Your task to perform on an android device: Open Android settings Image 0: 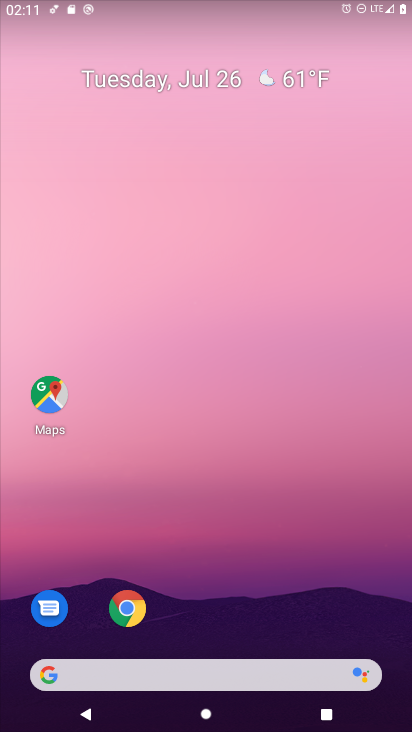
Step 0: drag from (32, 619) to (244, 88)
Your task to perform on an android device: Open Android settings Image 1: 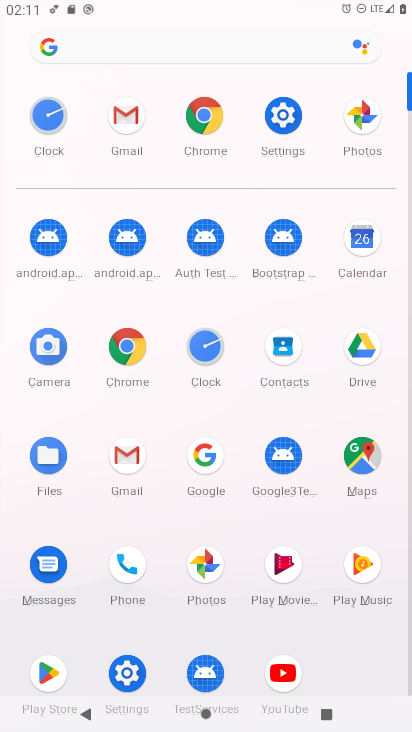
Step 1: click (301, 108)
Your task to perform on an android device: Open Android settings Image 2: 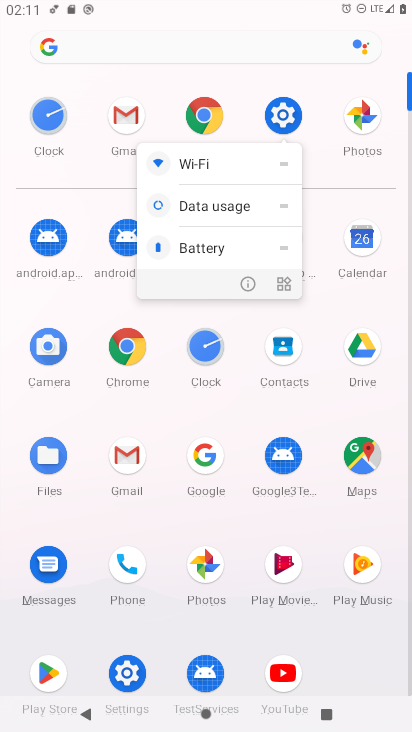
Step 2: click (287, 110)
Your task to perform on an android device: Open Android settings Image 3: 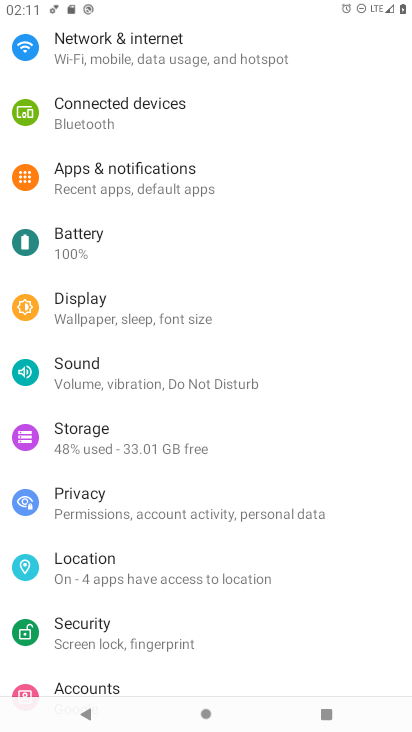
Step 3: drag from (44, 635) to (253, 11)
Your task to perform on an android device: Open Android settings Image 4: 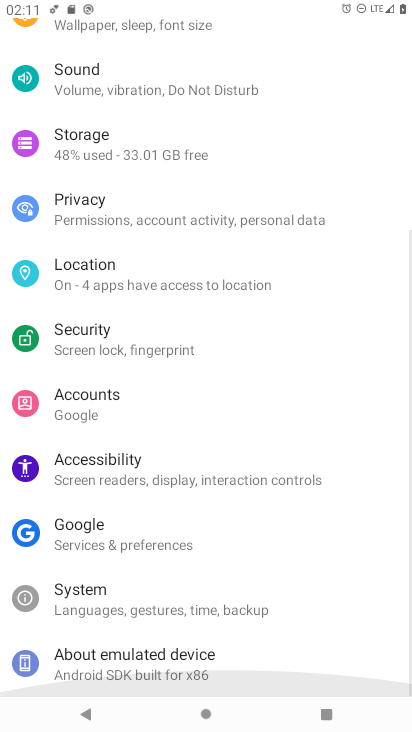
Step 4: drag from (253, 29) to (25, 659)
Your task to perform on an android device: Open Android settings Image 5: 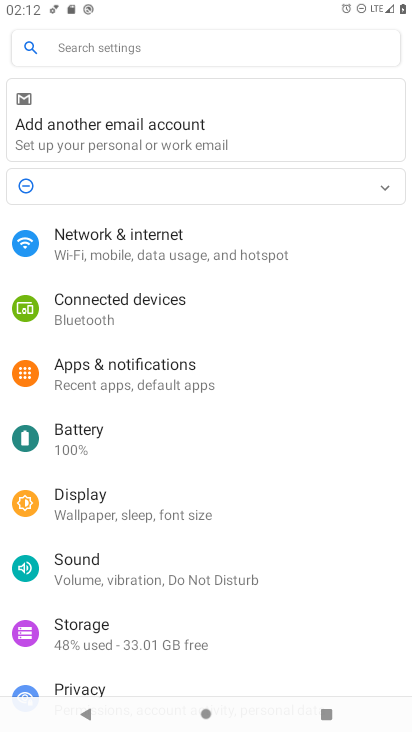
Step 5: click (98, 234)
Your task to perform on an android device: Open Android settings Image 6: 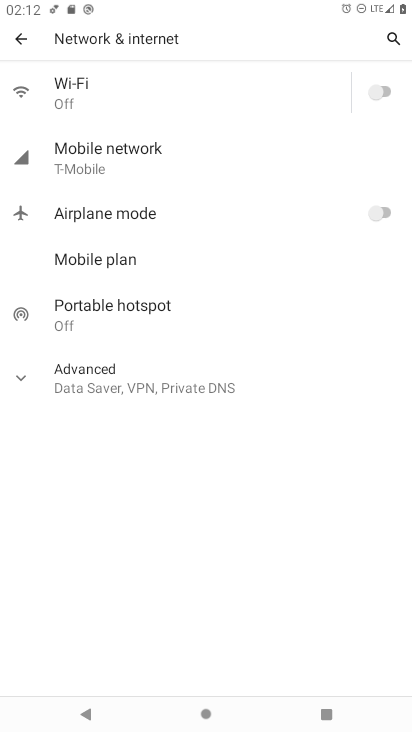
Step 6: click (20, 371)
Your task to perform on an android device: Open Android settings Image 7: 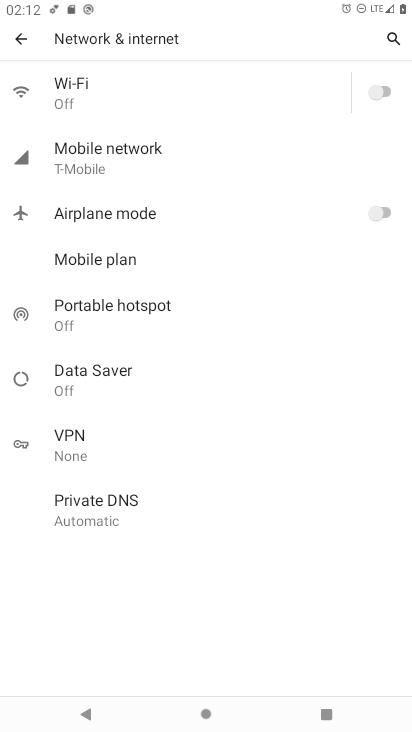
Step 7: task complete